Your task to perform on an android device: allow notifications from all sites in the chrome app Image 0: 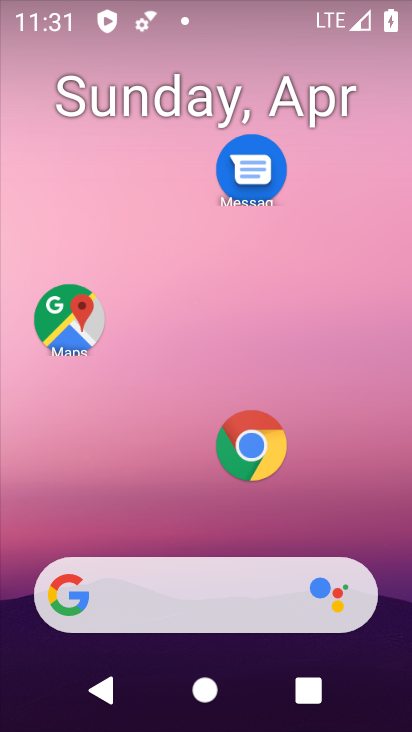
Step 0: drag from (199, 567) to (348, 39)
Your task to perform on an android device: allow notifications from all sites in the chrome app Image 1: 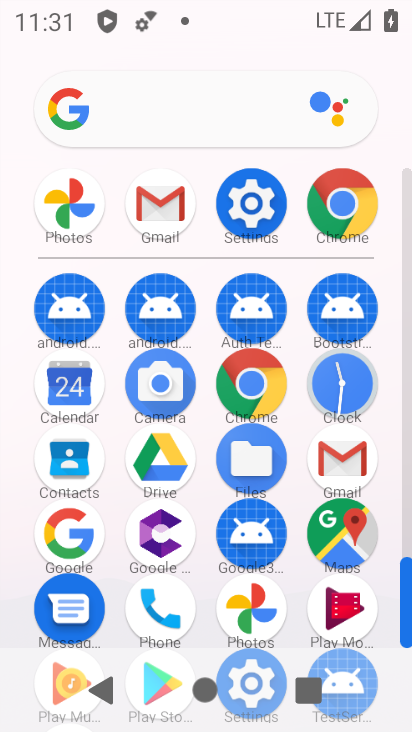
Step 1: click (262, 217)
Your task to perform on an android device: allow notifications from all sites in the chrome app Image 2: 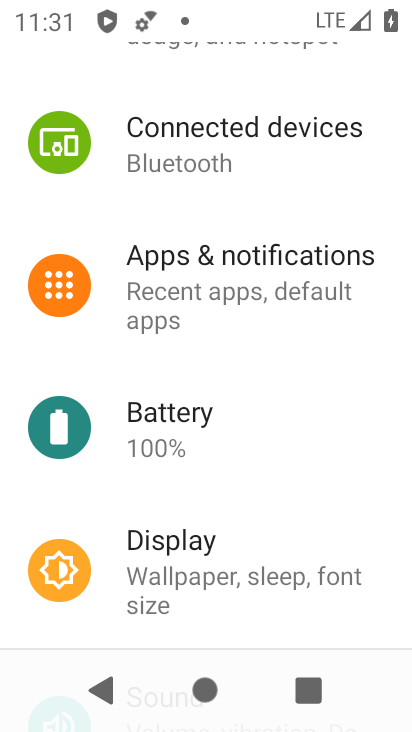
Step 2: press home button
Your task to perform on an android device: allow notifications from all sites in the chrome app Image 3: 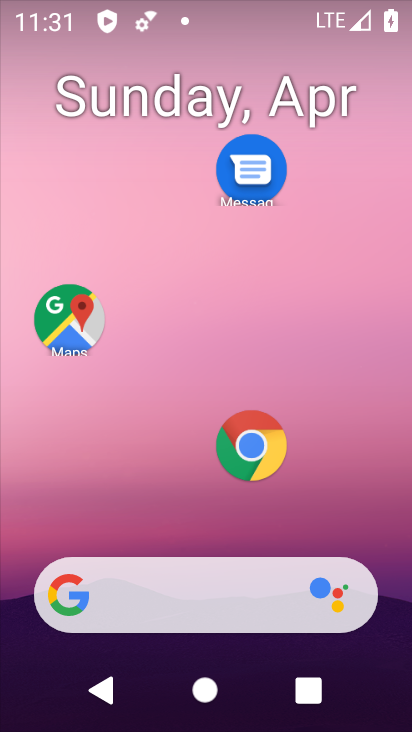
Step 3: click (249, 440)
Your task to perform on an android device: allow notifications from all sites in the chrome app Image 4: 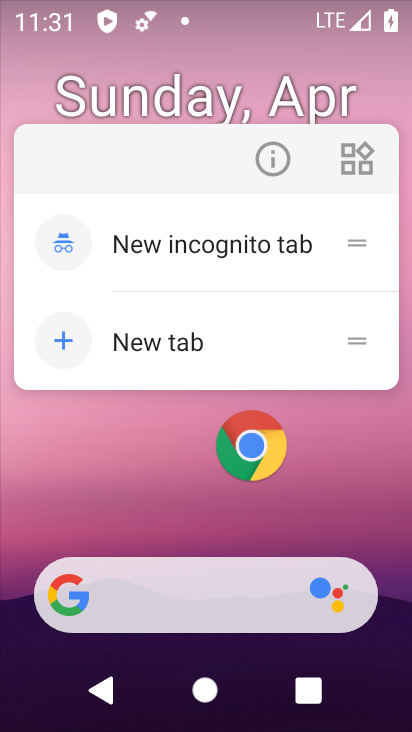
Step 4: click (255, 461)
Your task to perform on an android device: allow notifications from all sites in the chrome app Image 5: 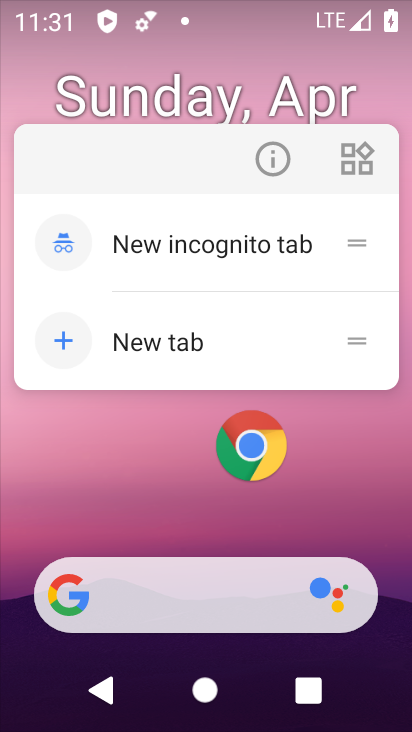
Step 5: click (245, 450)
Your task to perform on an android device: allow notifications from all sites in the chrome app Image 6: 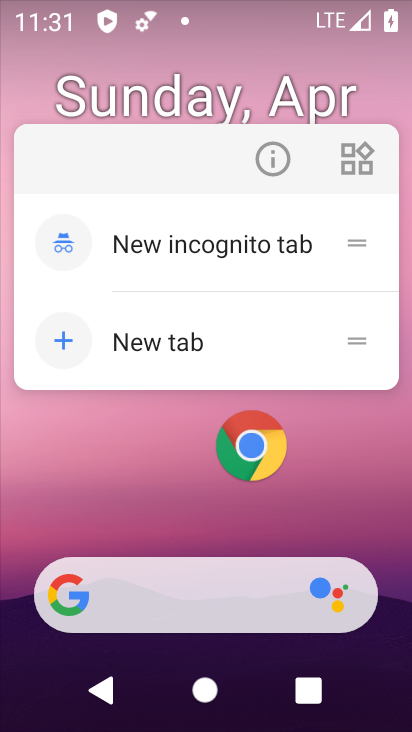
Step 6: click (255, 449)
Your task to perform on an android device: allow notifications from all sites in the chrome app Image 7: 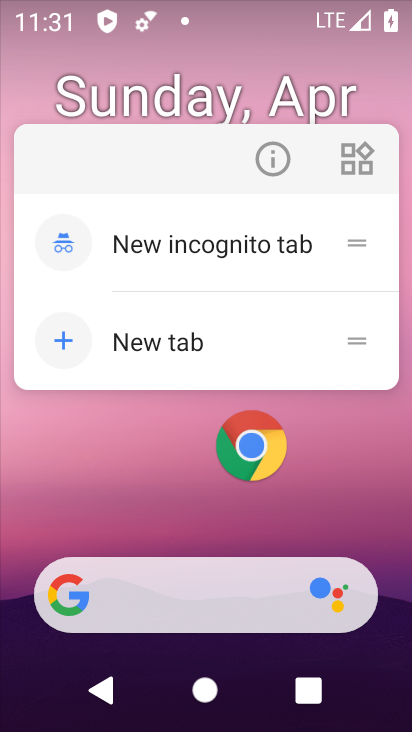
Step 7: click (257, 448)
Your task to perform on an android device: allow notifications from all sites in the chrome app Image 8: 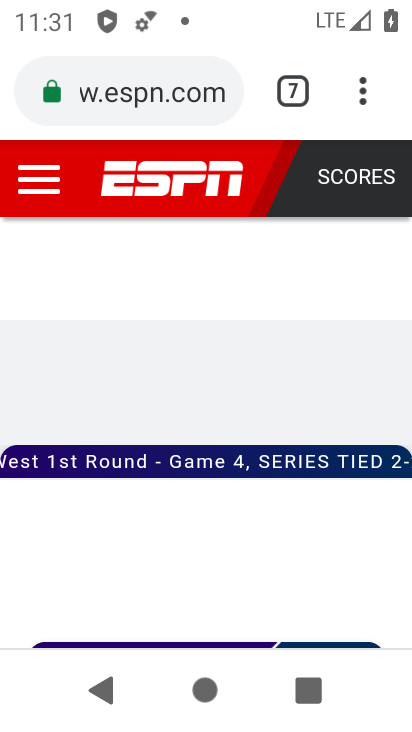
Step 8: drag from (364, 97) to (172, 475)
Your task to perform on an android device: allow notifications from all sites in the chrome app Image 9: 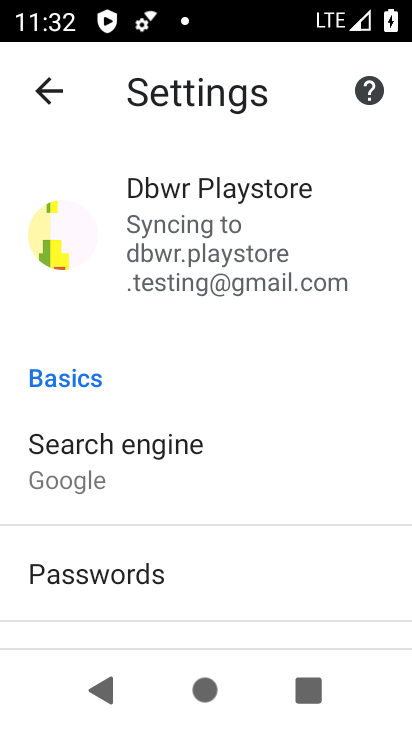
Step 9: drag from (186, 577) to (354, 101)
Your task to perform on an android device: allow notifications from all sites in the chrome app Image 10: 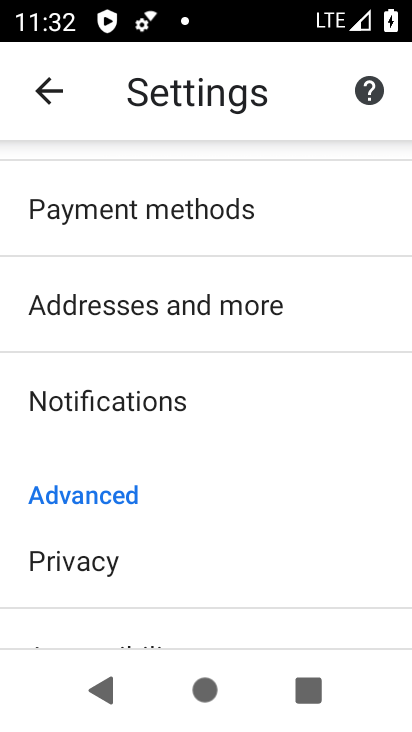
Step 10: drag from (140, 624) to (375, 237)
Your task to perform on an android device: allow notifications from all sites in the chrome app Image 11: 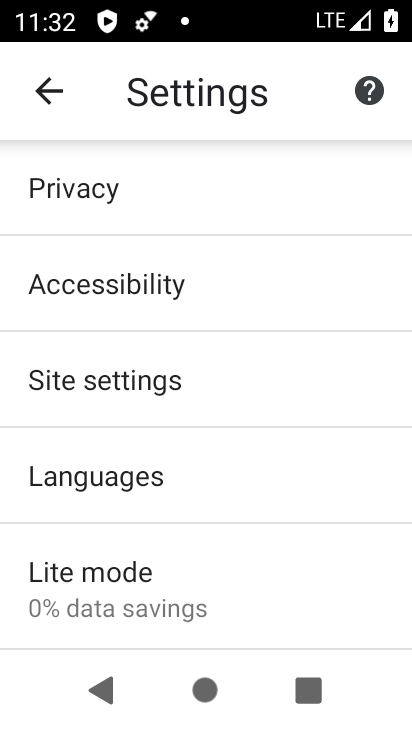
Step 11: click (145, 377)
Your task to perform on an android device: allow notifications from all sites in the chrome app Image 12: 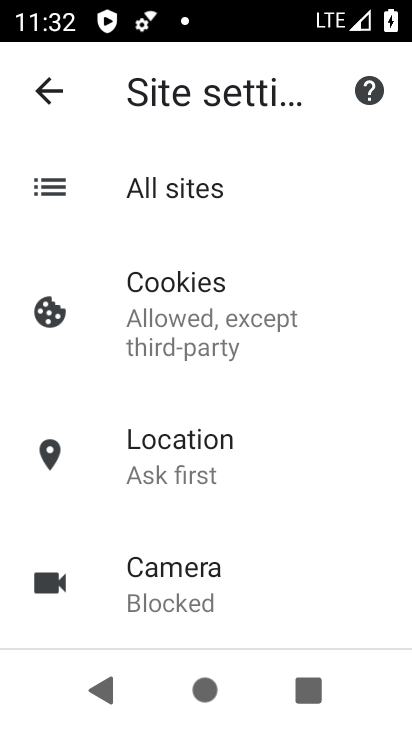
Step 12: drag from (228, 540) to (317, 336)
Your task to perform on an android device: allow notifications from all sites in the chrome app Image 13: 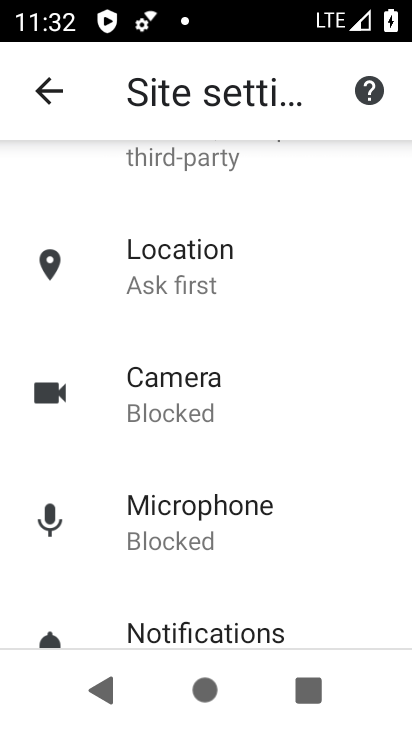
Step 13: drag from (181, 614) to (305, 223)
Your task to perform on an android device: allow notifications from all sites in the chrome app Image 14: 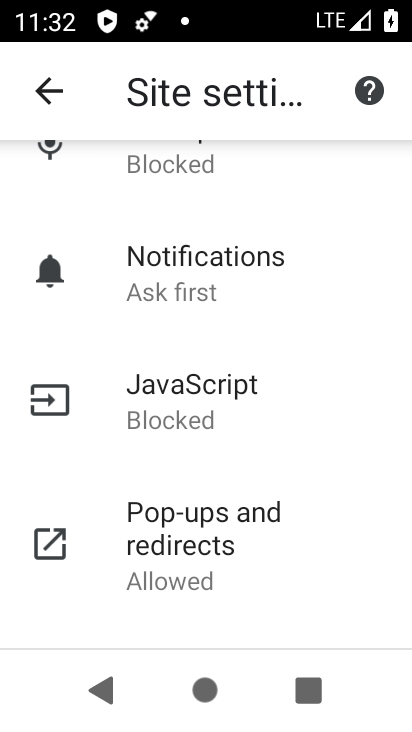
Step 14: click (205, 264)
Your task to perform on an android device: allow notifications from all sites in the chrome app Image 15: 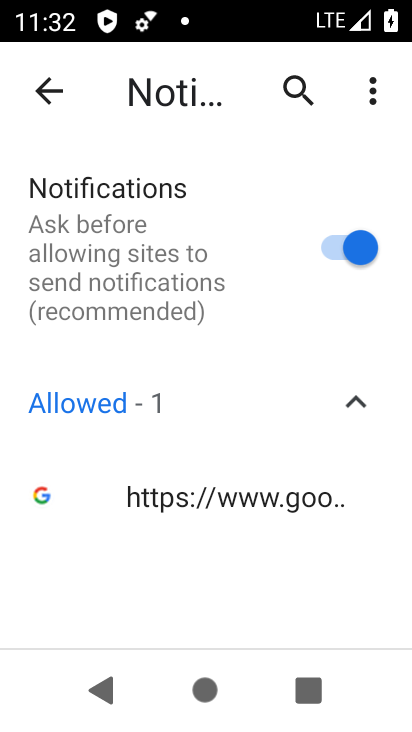
Step 15: task complete